Your task to perform on an android device: create a new album in the google photos Image 0: 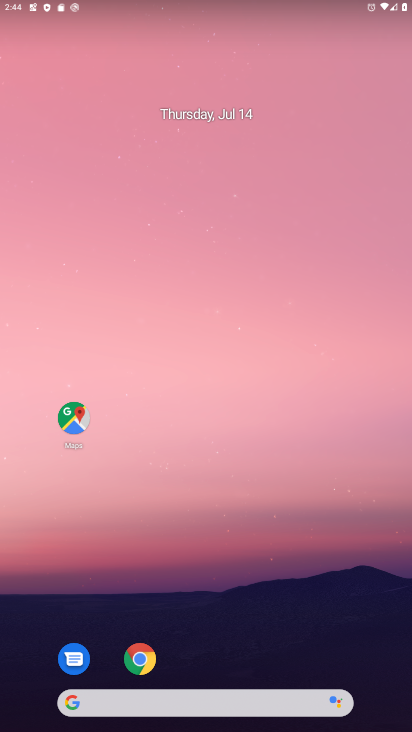
Step 0: press home button
Your task to perform on an android device: create a new album in the google photos Image 1: 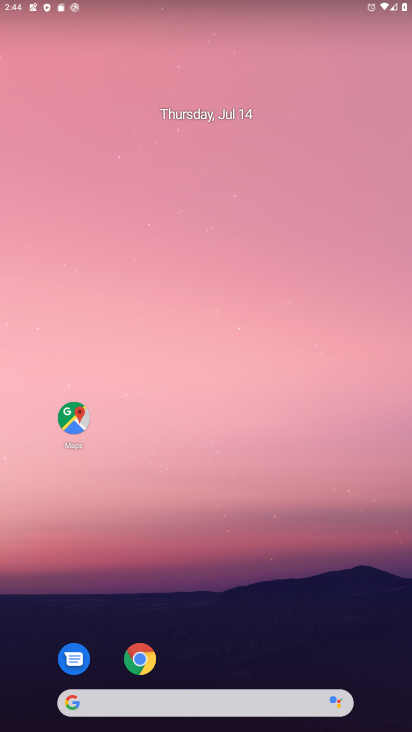
Step 1: drag from (222, 635) to (281, 223)
Your task to perform on an android device: create a new album in the google photos Image 2: 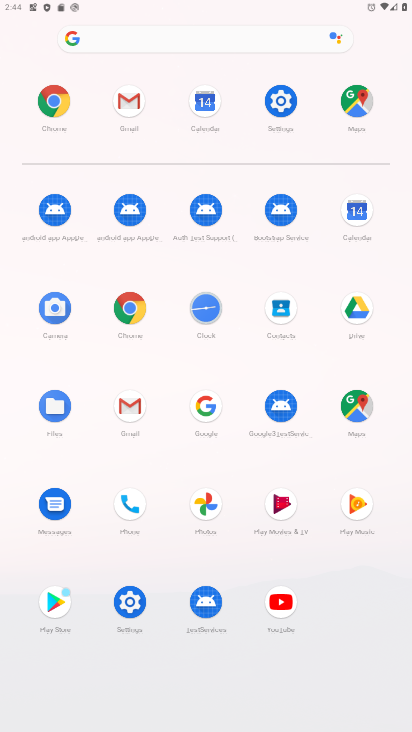
Step 2: click (204, 507)
Your task to perform on an android device: create a new album in the google photos Image 3: 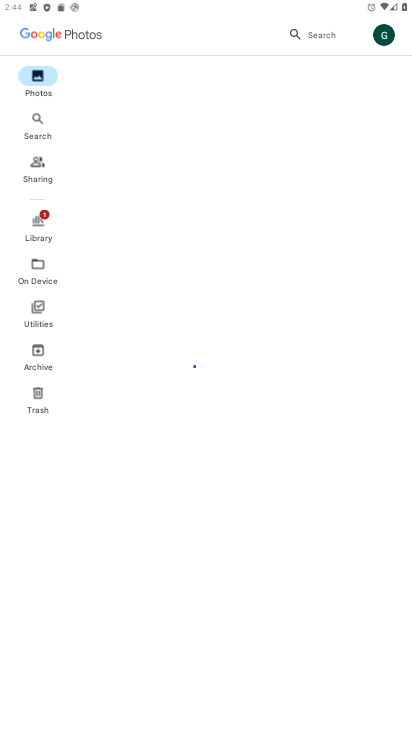
Step 3: click (40, 233)
Your task to perform on an android device: create a new album in the google photos Image 4: 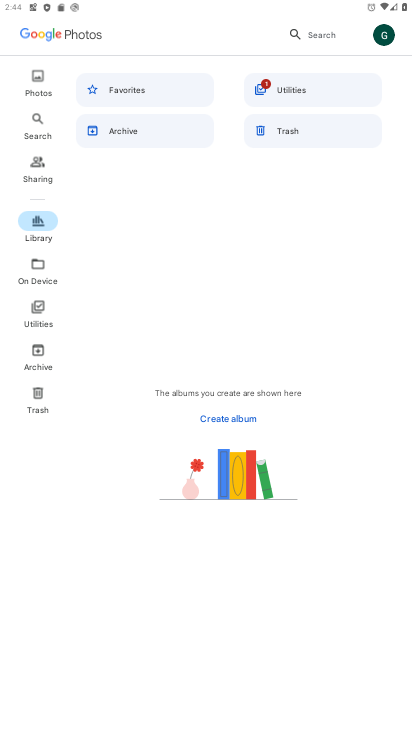
Step 4: click (56, 95)
Your task to perform on an android device: create a new album in the google photos Image 5: 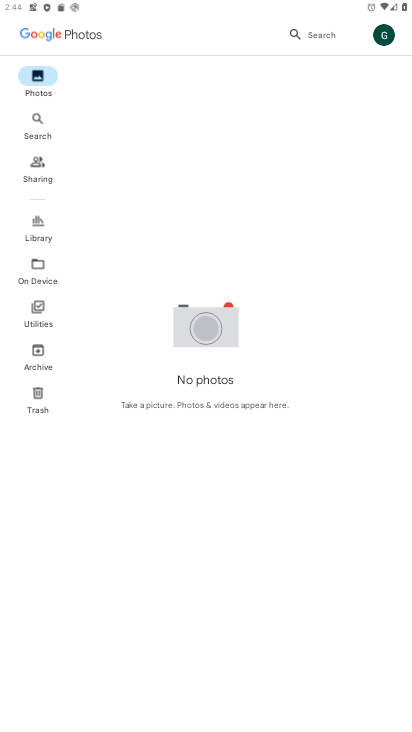
Step 5: click (385, 24)
Your task to perform on an android device: create a new album in the google photos Image 6: 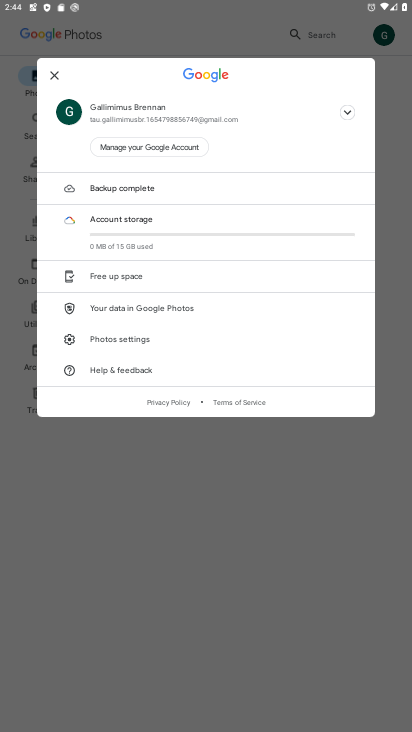
Step 6: task complete